Your task to perform on an android device: change notification settings in the gmail app Image 0: 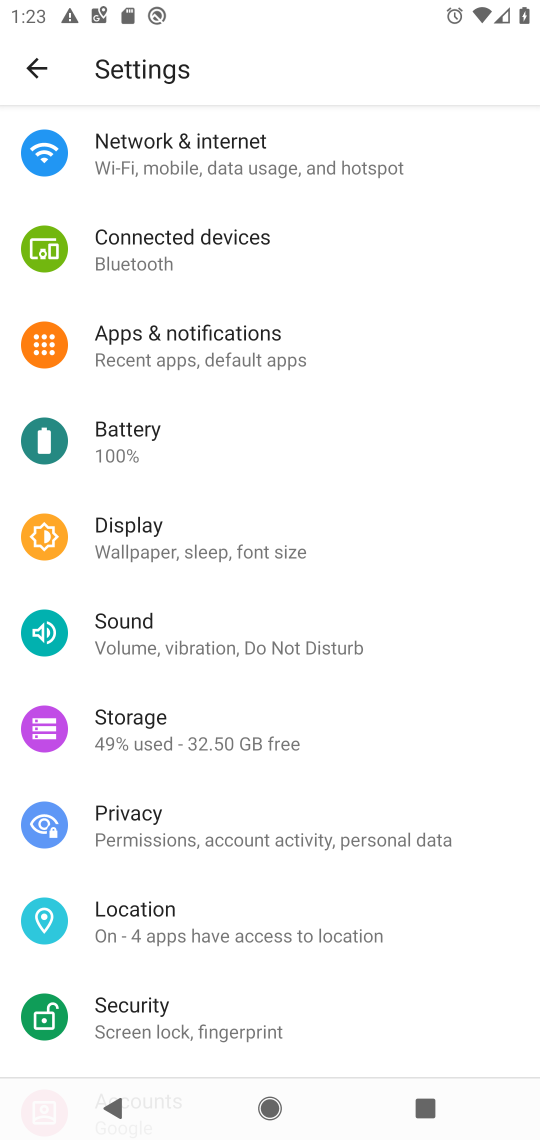
Step 0: click (288, 345)
Your task to perform on an android device: change notification settings in the gmail app Image 1: 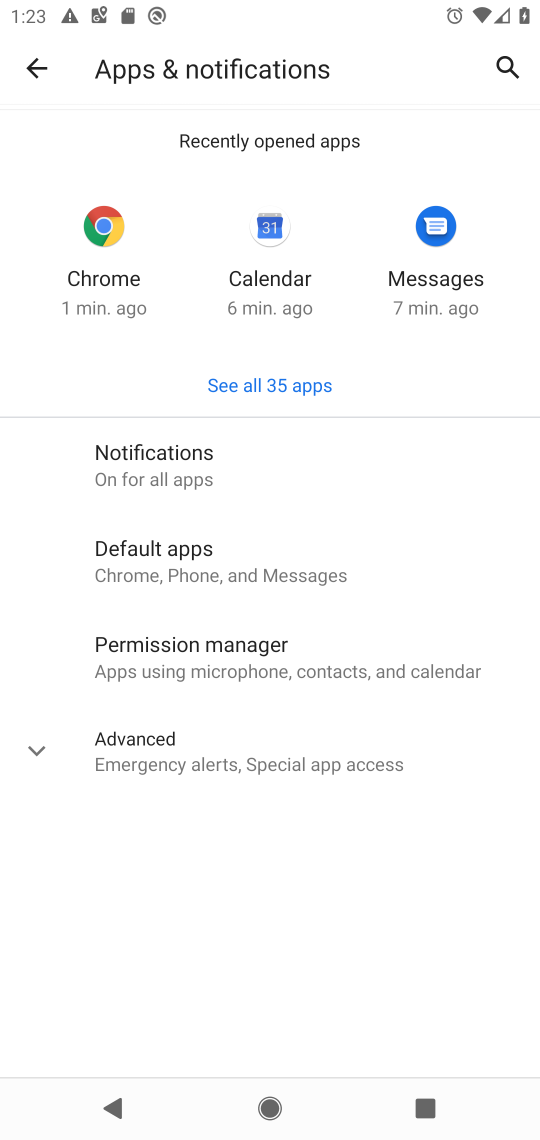
Step 1: click (296, 372)
Your task to perform on an android device: change notification settings in the gmail app Image 2: 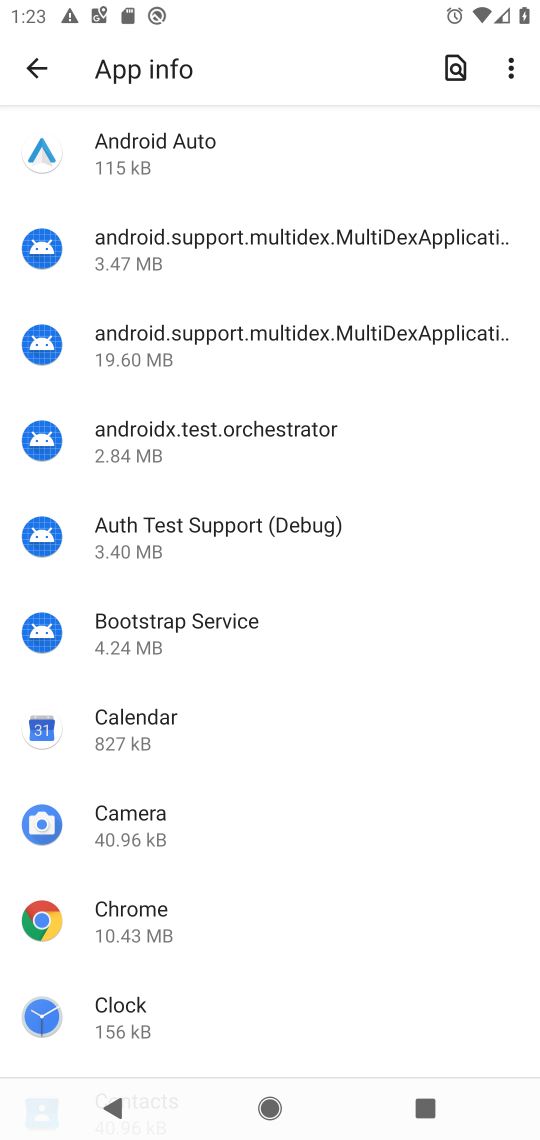
Step 2: drag from (256, 979) to (258, 21)
Your task to perform on an android device: change notification settings in the gmail app Image 3: 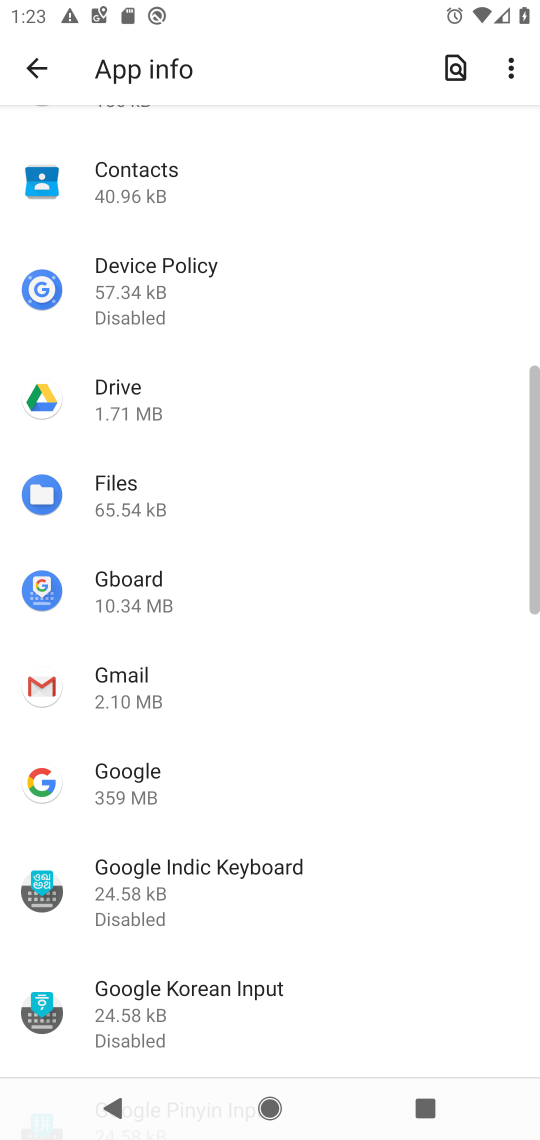
Step 3: click (154, 682)
Your task to perform on an android device: change notification settings in the gmail app Image 4: 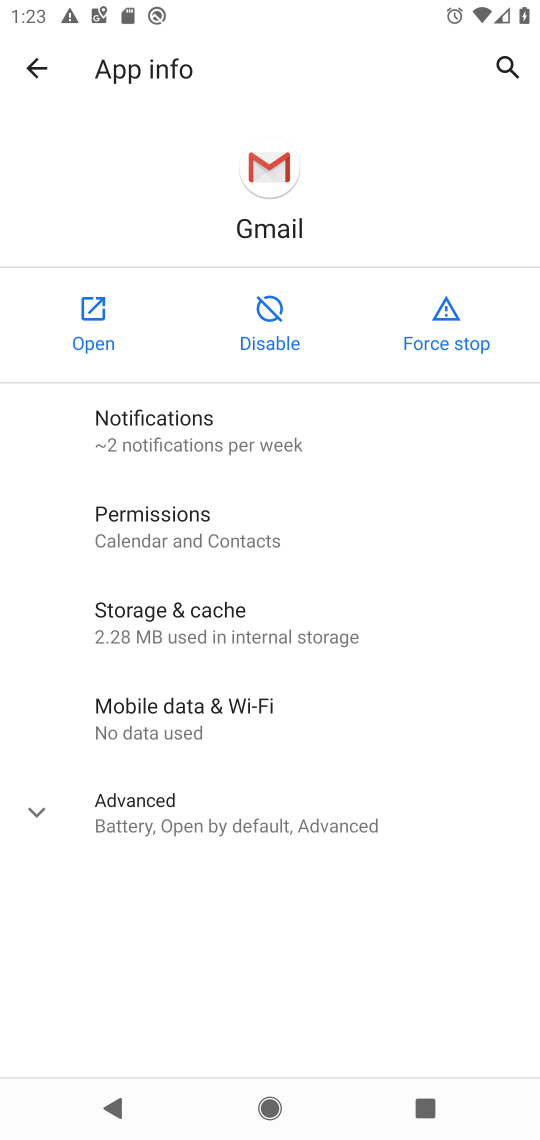
Step 4: click (32, 808)
Your task to perform on an android device: change notification settings in the gmail app Image 5: 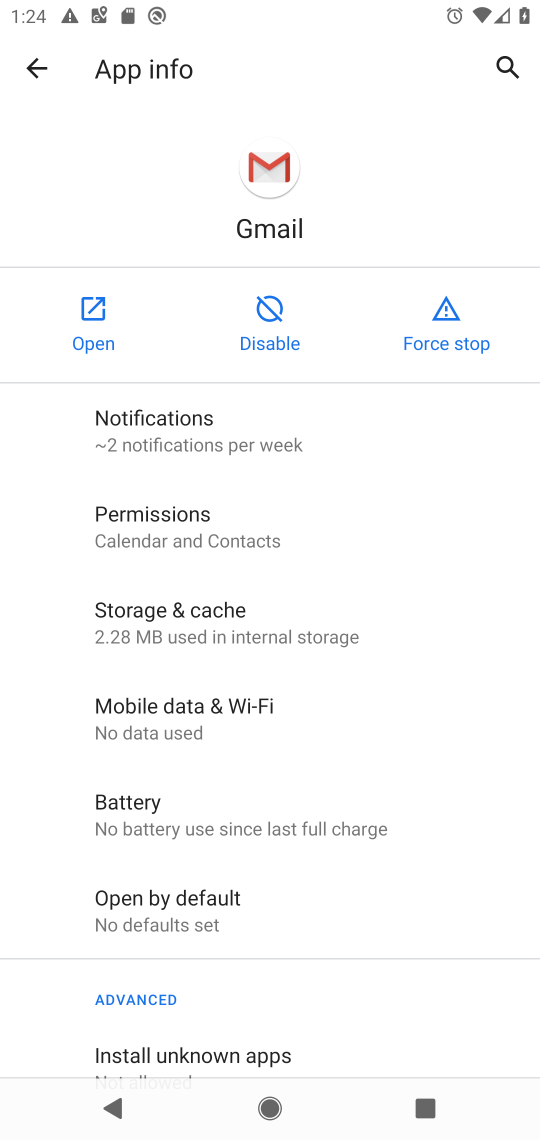
Step 5: drag from (343, 909) to (328, 257)
Your task to perform on an android device: change notification settings in the gmail app Image 6: 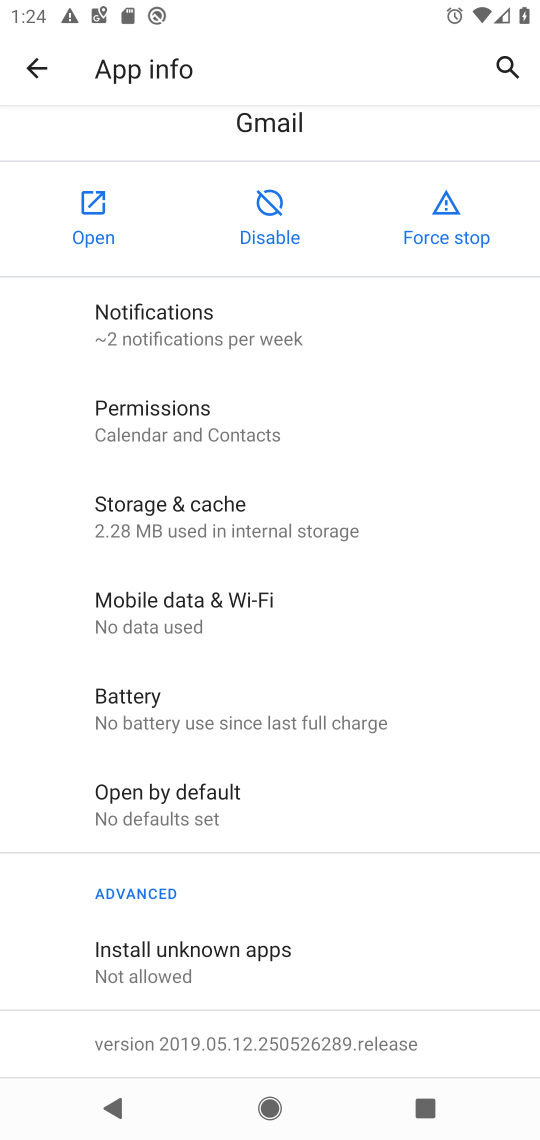
Step 6: click (291, 331)
Your task to perform on an android device: change notification settings in the gmail app Image 7: 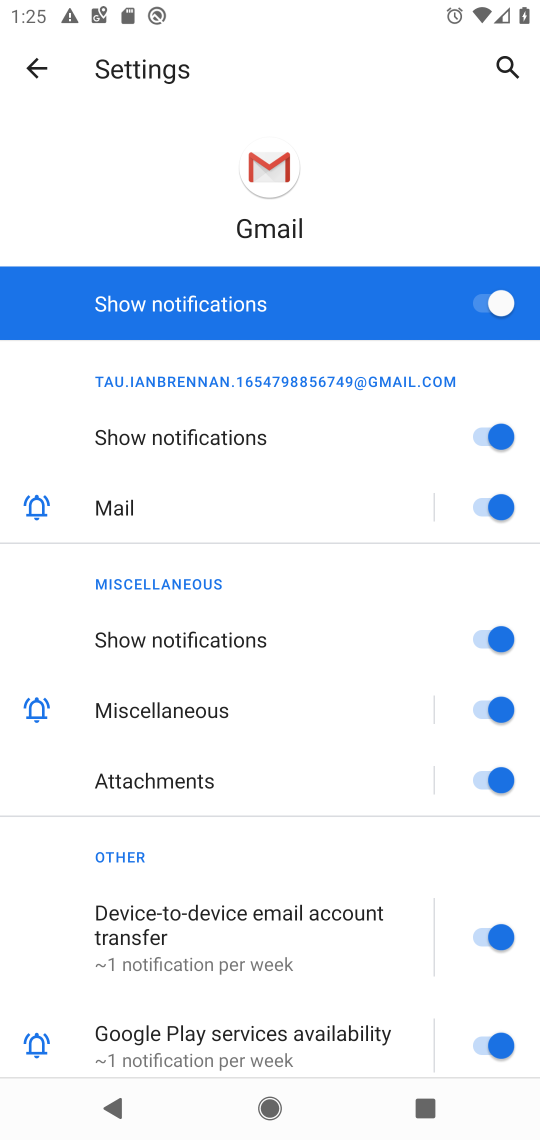
Step 7: click (479, 306)
Your task to perform on an android device: change notification settings in the gmail app Image 8: 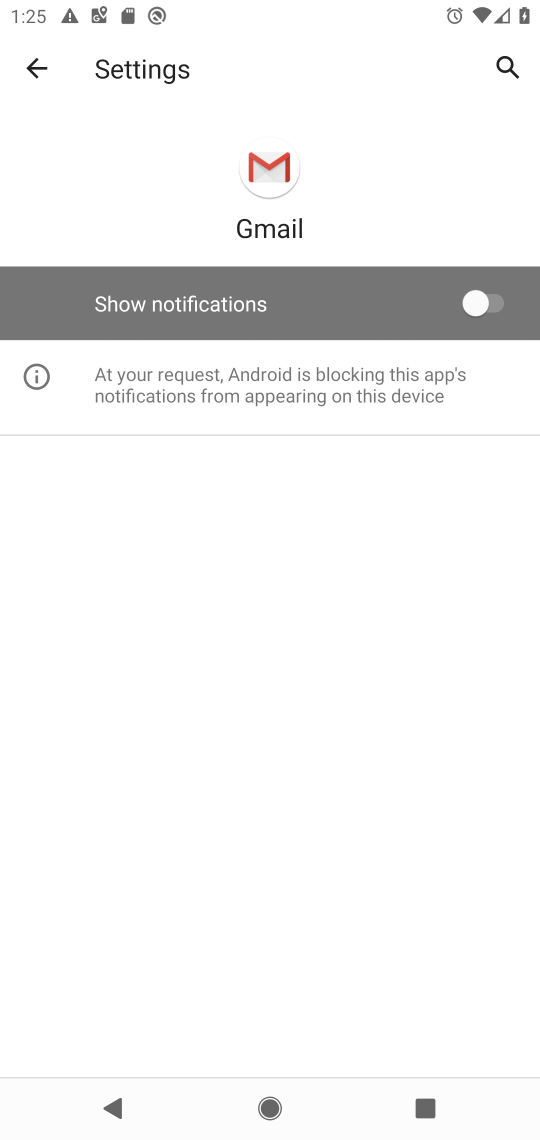
Step 8: task complete